Your task to perform on an android device: turn off data saver in the chrome app Image 0: 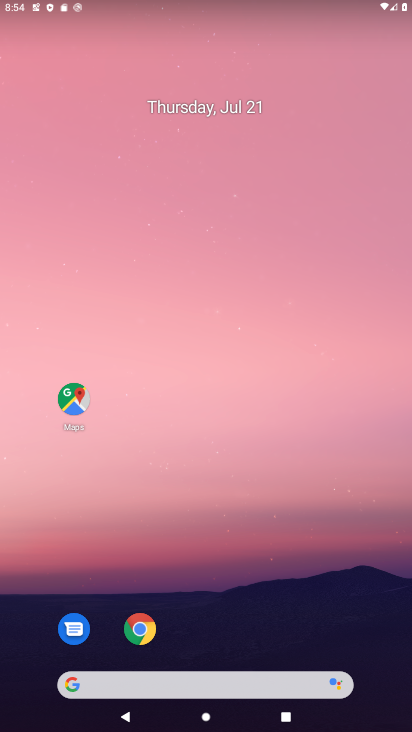
Step 0: click (141, 620)
Your task to perform on an android device: turn off data saver in the chrome app Image 1: 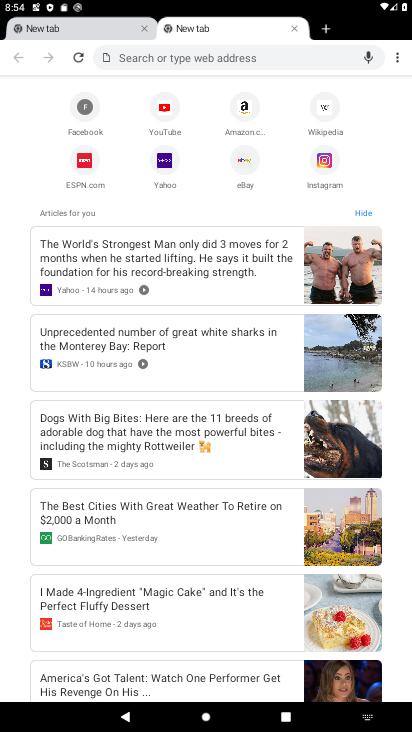
Step 1: click (397, 66)
Your task to perform on an android device: turn off data saver in the chrome app Image 2: 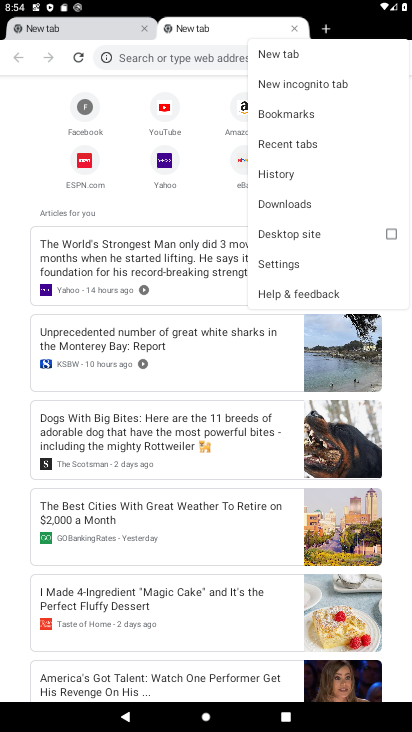
Step 2: click (303, 269)
Your task to perform on an android device: turn off data saver in the chrome app Image 3: 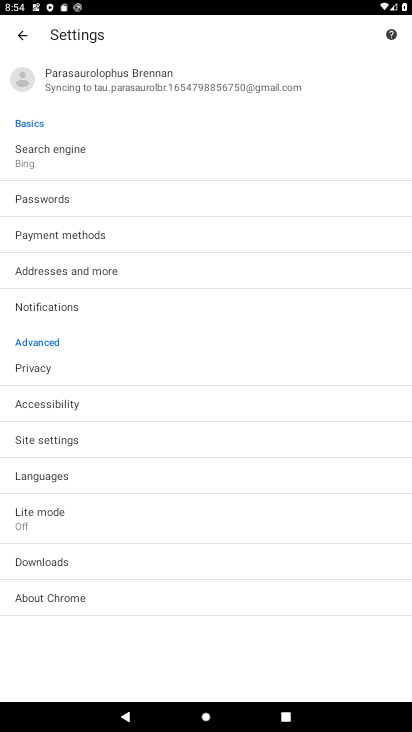
Step 3: click (110, 523)
Your task to perform on an android device: turn off data saver in the chrome app Image 4: 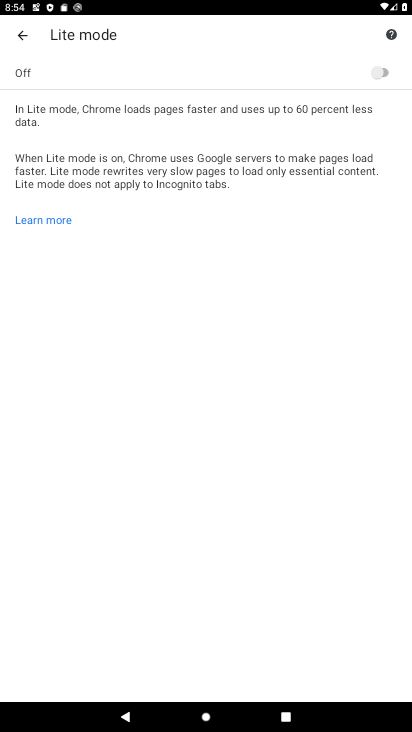
Step 4: task complete